Your task to perform on an android device: toggle notification dots Image 0: 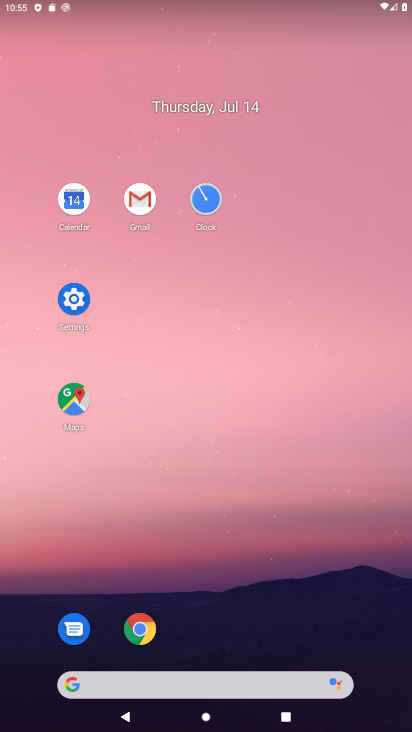
Step 0: click (81, 298)
Your task to perform on an android device: toggle notification dots Image 1: 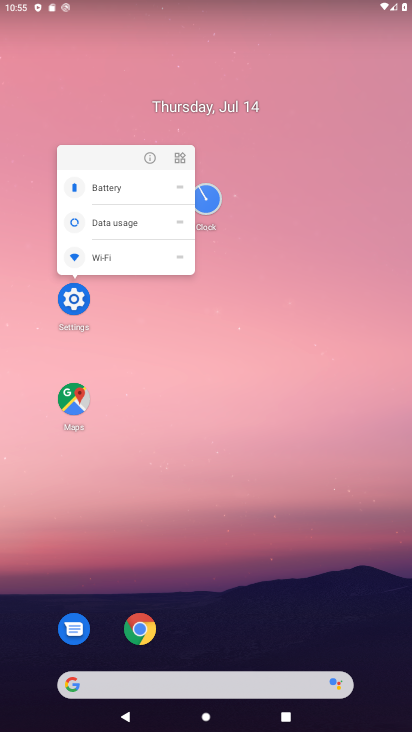
Step 1: click (80, 300)
Your task to perform on an android device: toggle notification dots Image 2: 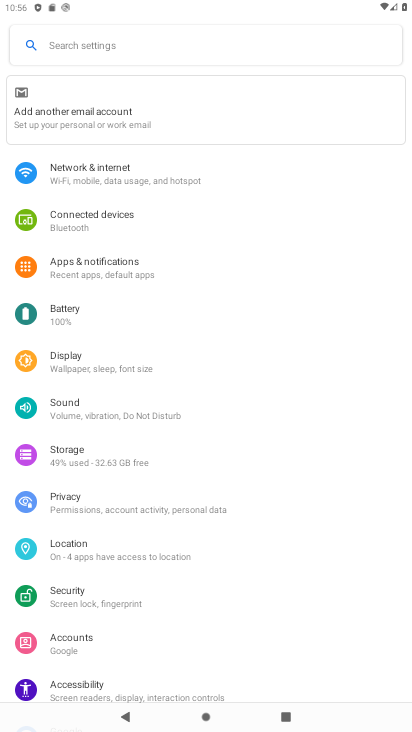
Step 2: click (117, 282)
Your task to perform on an android device: toggle notification dots Image 3: 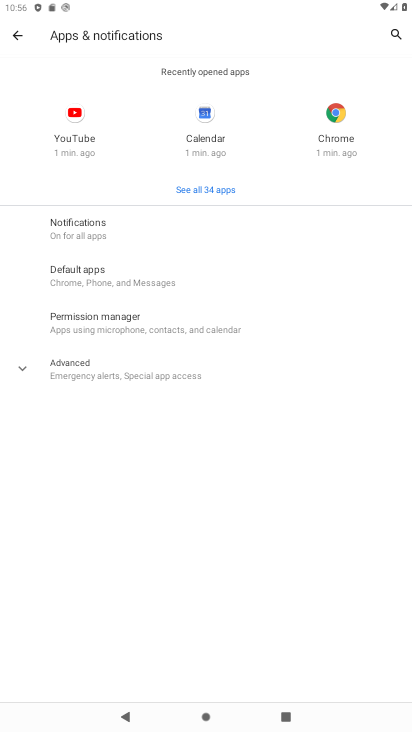
Step 3: click (138, 237)
Your task to perform on an android device: toggle notification dots Image 4: 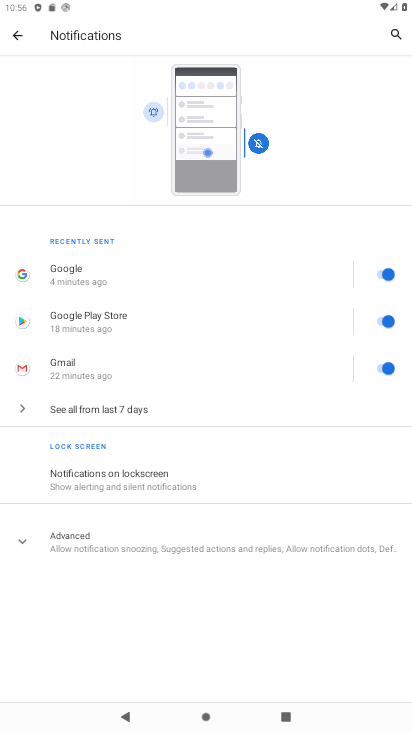
Step 4: click (79, 528)
Your task to perform on an android device: toggle notification dots Image 5: 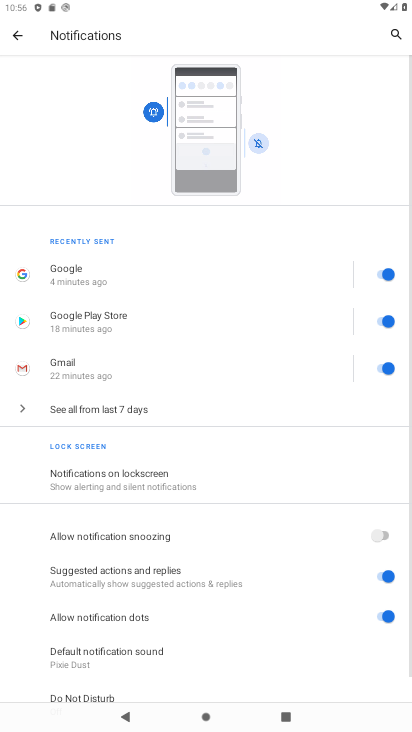
Step 5: drag from (134, 606) to (159, 305)
Your task to perform on an android device: toggle notification dots Image 6: 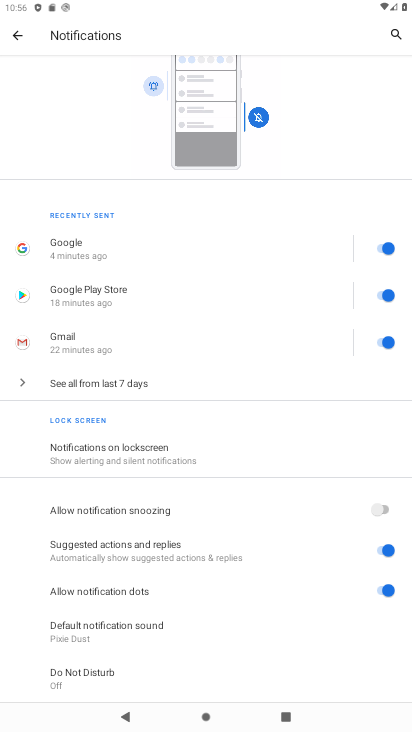
Step 6: click (388, 586)
Your task to perform on an android device: toggle notification dots Image 7: 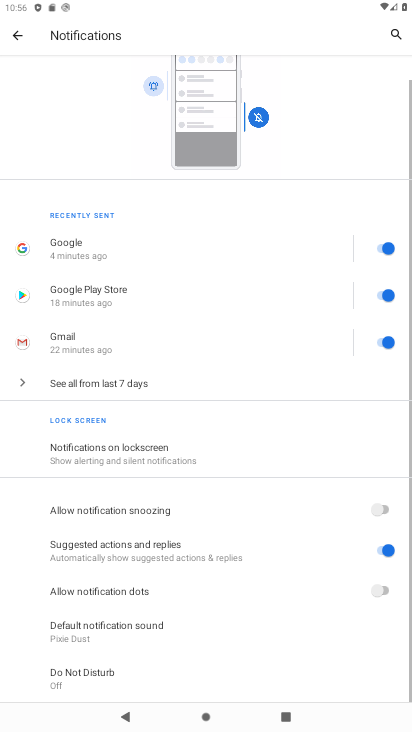
Step 7: task complete